Your task to perform on an android device: See recent photos Image 0: 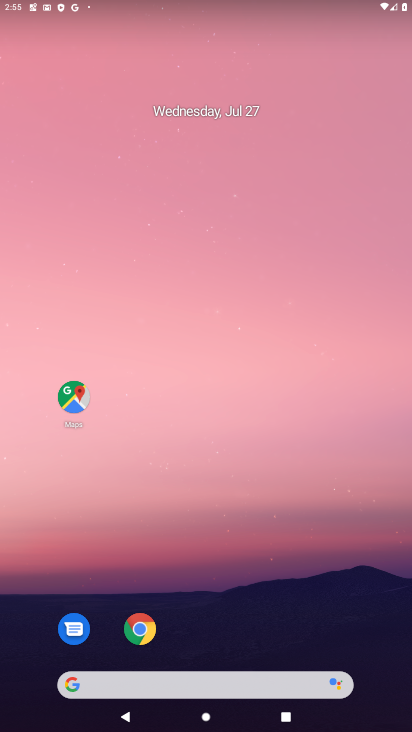
Step 0: drag from (285, 664) to (235, 144)
Your task to perform on an android device: See recent photos Image 1: 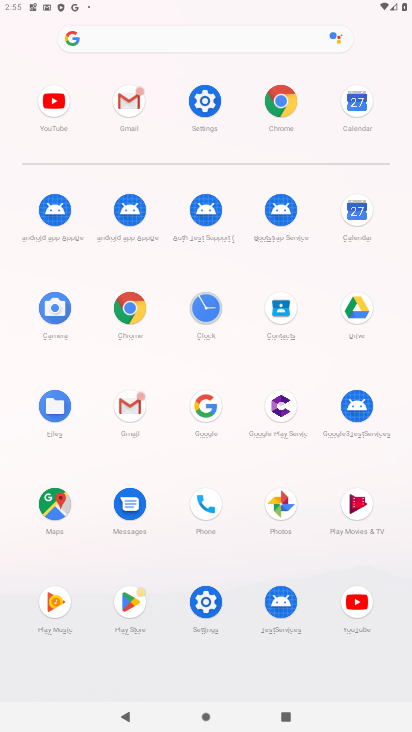
Step 1: click (288, 502)
Your task to perform on an android device: See recent photos Image 2: 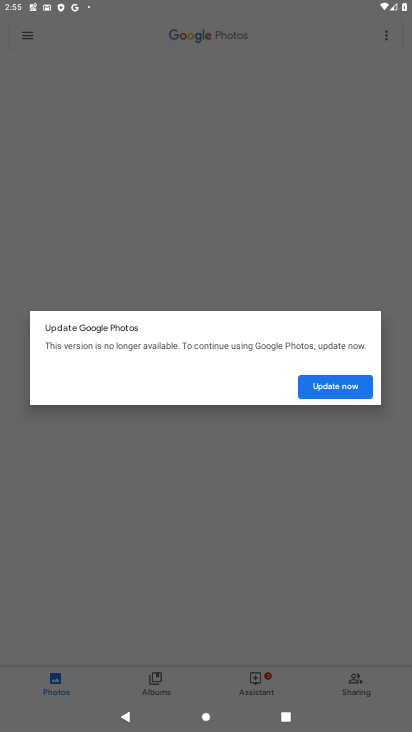
Step 2: click (336, 380)
Your task to perform on an android device: See recent photos Image 3: 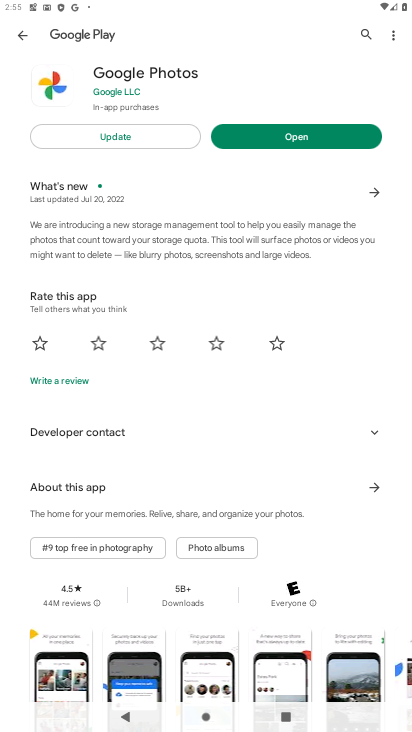
Step 3: click (132, 143)
Your task to perform on an android device: See recent photos Image 4: 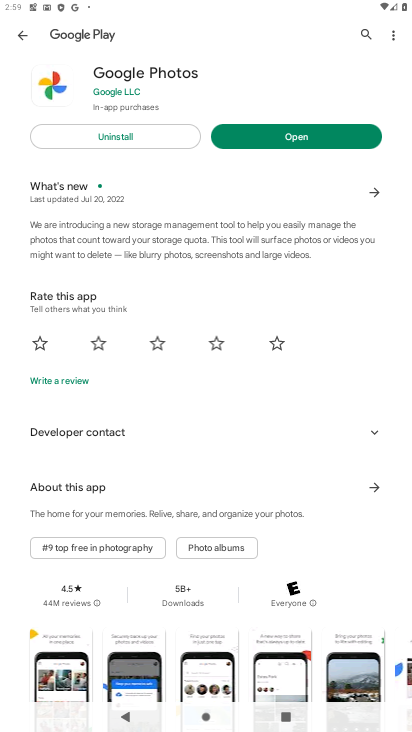
Step 4: task complete